Your task to perform on an android device: Go to Yahoo.com Image 0: 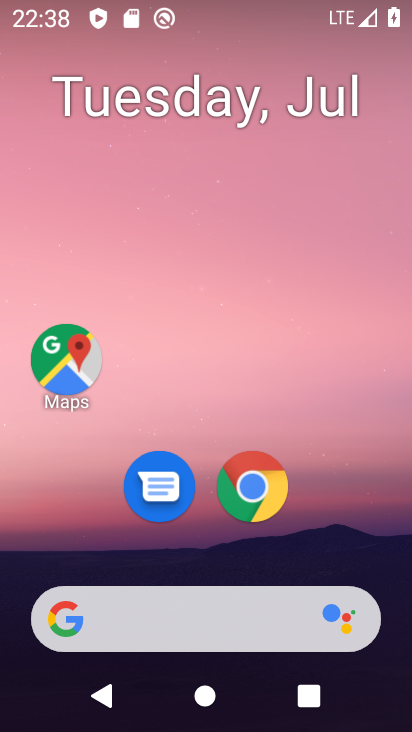
Step 0: drag from (373, 518) to (346, 124)
Your task to perform on an android device: Go to Yahoo.com Image 1: 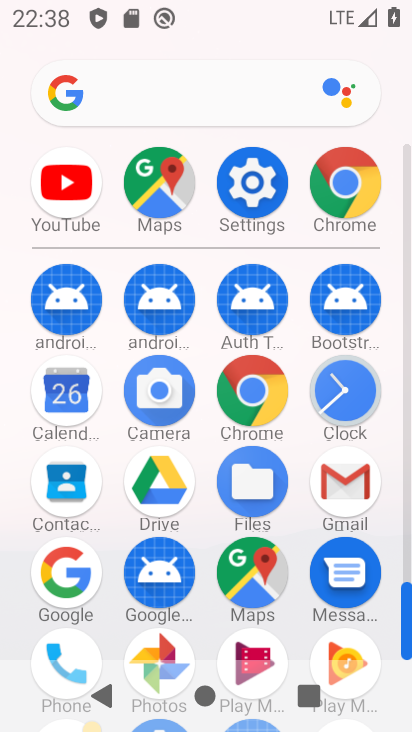
Step 1: click (250, 401)
Your task to perform on an android device: Go to Yahoo.com Image 2: 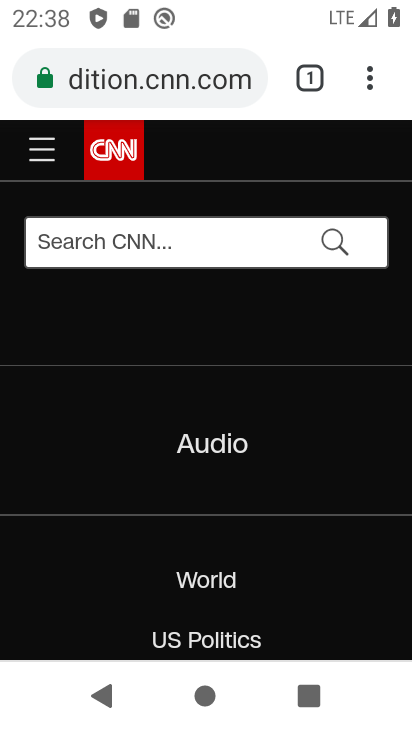
Step 2: click (194, 80)
Your task to perform on an android device: Go to Yahoo.com Image 3: 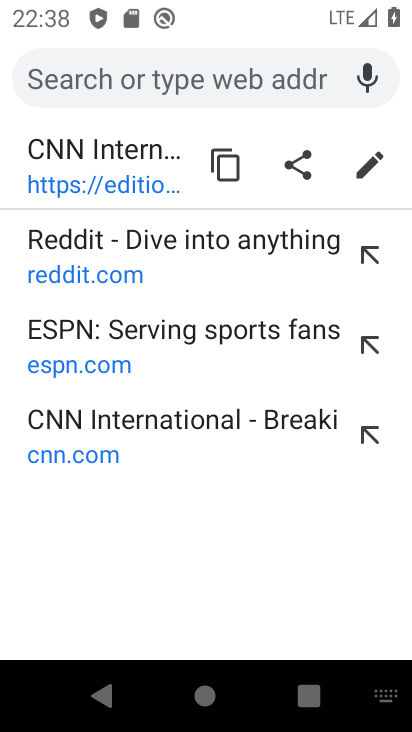
Step 3: type "yahoo.com"
Your task to perform on an android device: Go to Yahoo.com Image 4: 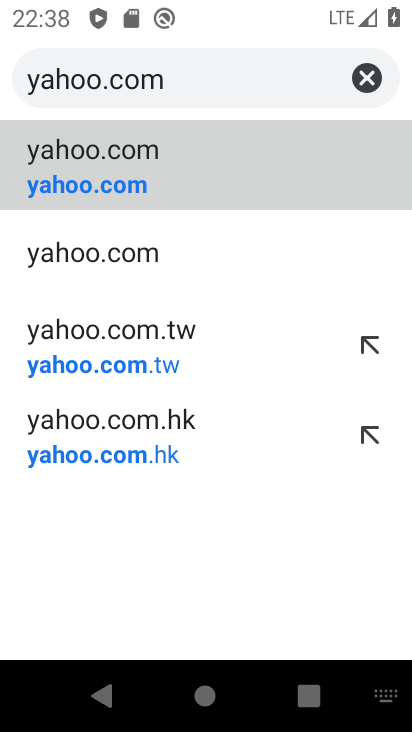
Step 4: click (357, 188)
Your task to perform on an android device: Go to Yahoo.com Image 5: 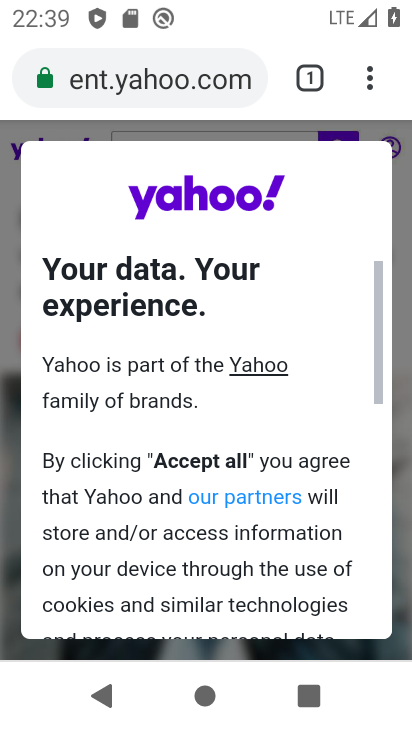
Step 5: task complete